Your task to perform on an android device: open app "Venmo" (install if not already installed) and go to login screen Image 0: 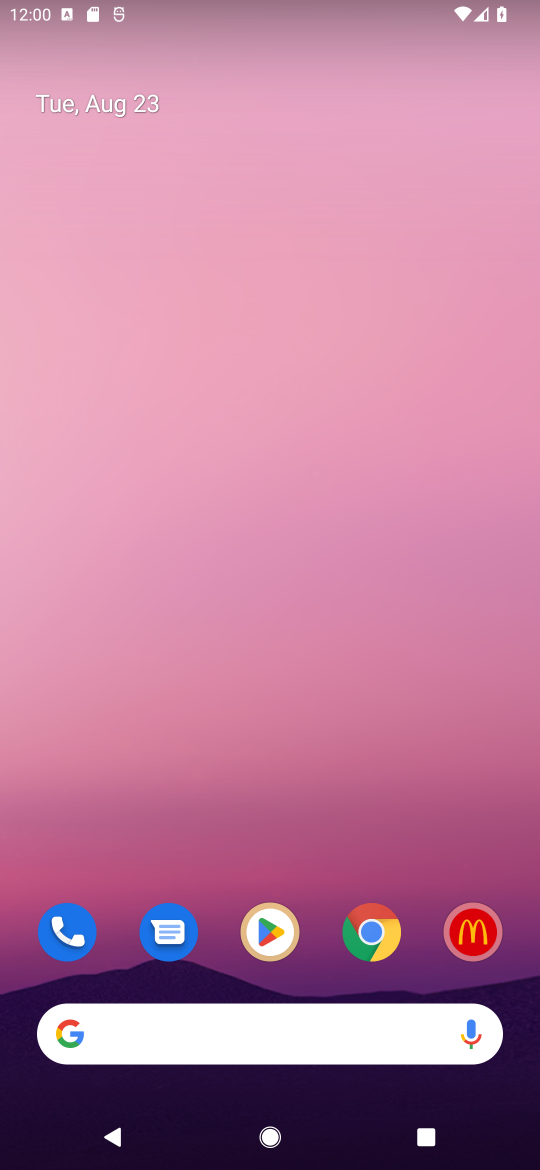
Step 0: click (281, 919)
Your task to perform on an android device: open app "Venmo" (install if not already installed) and go to login screen Image 1: 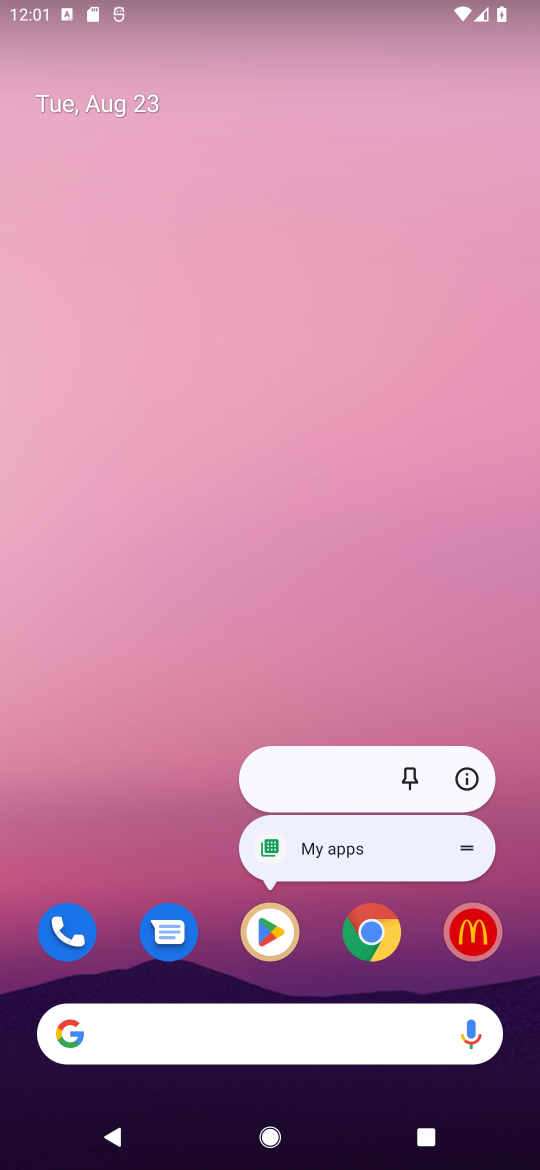
Step 1: click (276, 930)
Your task to perform on an android device: open app "Venmo" (install if not already installed) and go to login screen Image 2: 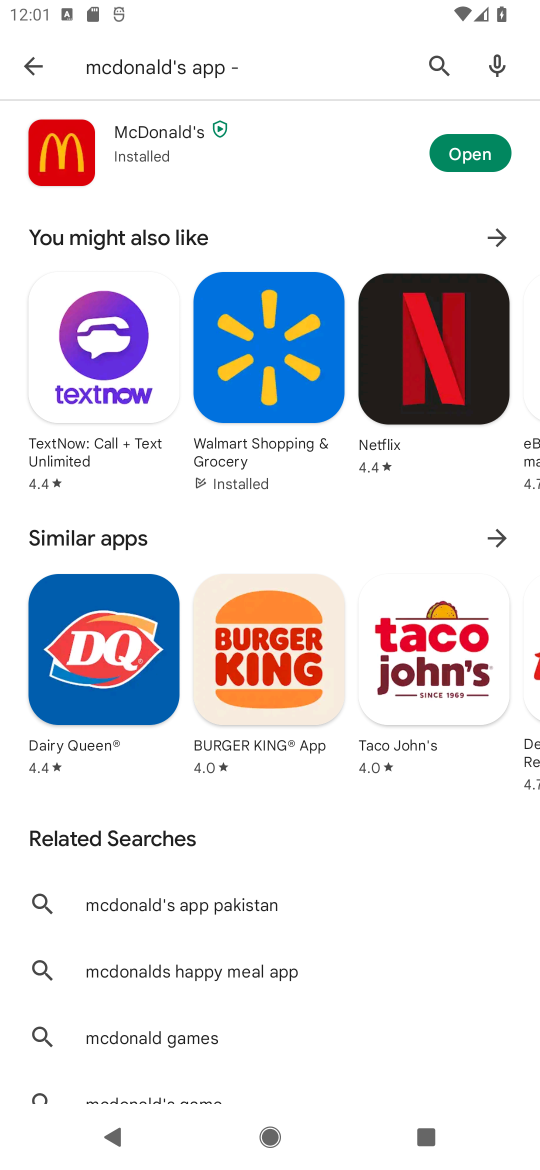
Step 2: click (439, 49)
Your task to perform on an android device: open app "Venmo" (install if not already installed) and go to login screen Image 3: 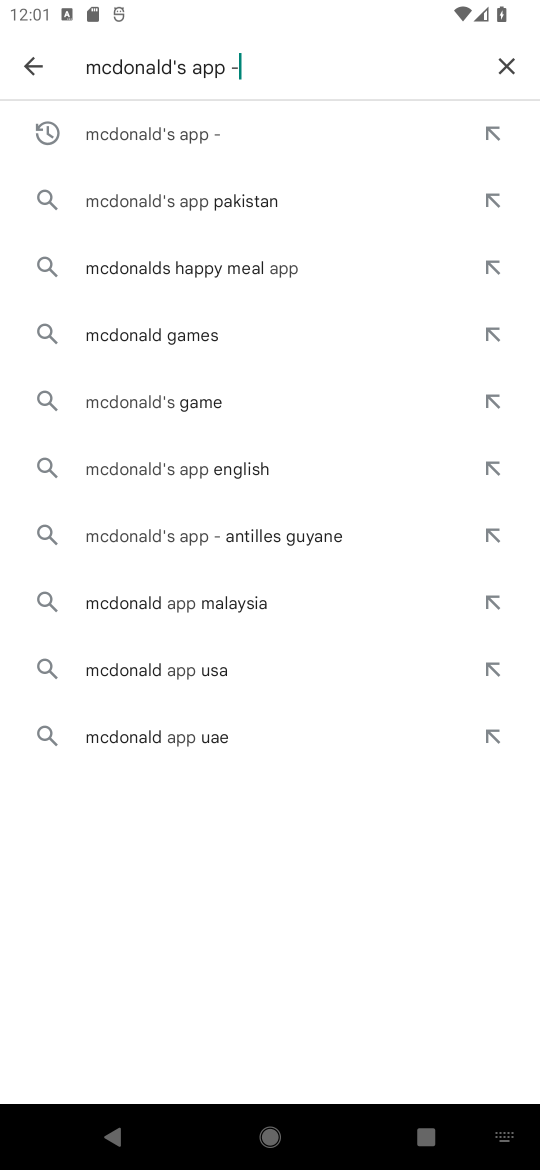
Step 3: click (508, 61)
Your task to perform on an android device: open app "Venmo" (install if not already installed) and go to login screen Image 4: 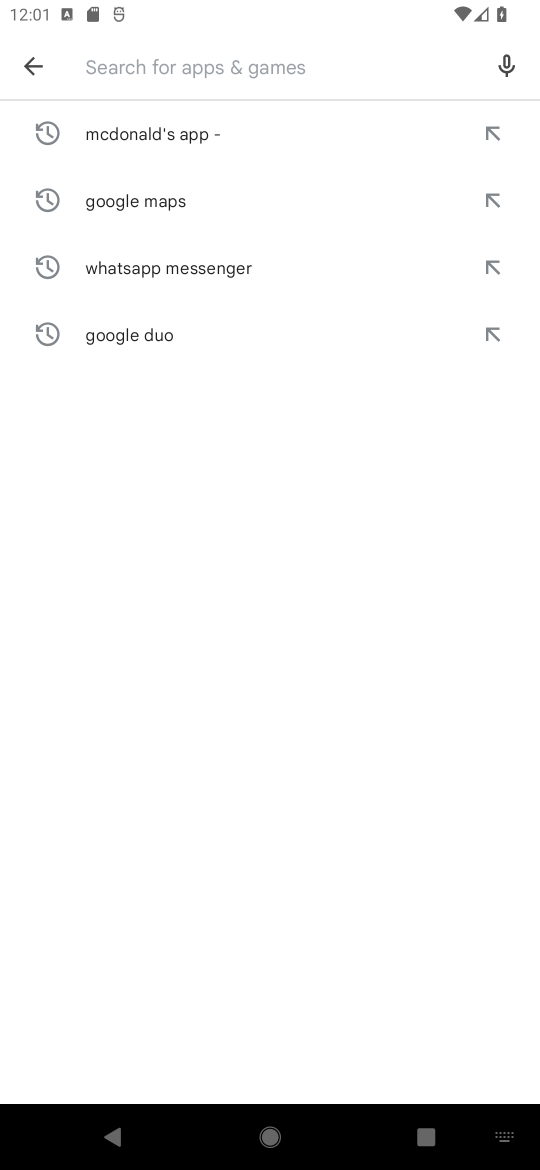
Step 4: type "venmo"
Your task to perform on an android device: open app "Venmo" (install if not already installed) and go to login screen Image 5: 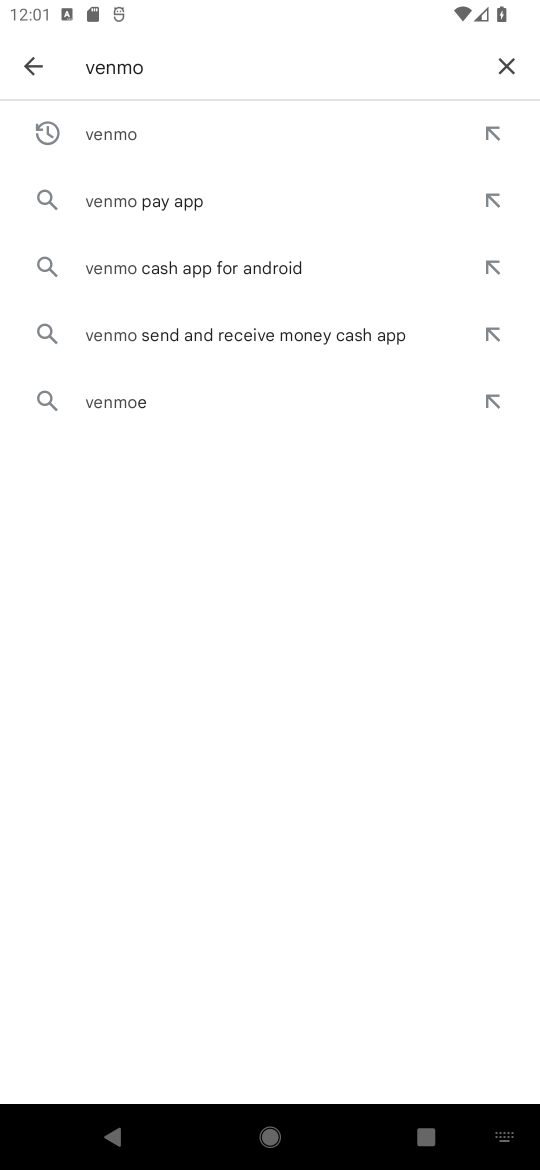
Step 5: click (136, 130)
Your task to perform on an android device: open app "Venmo" (install if not already installed) and go to login screen Image 6: 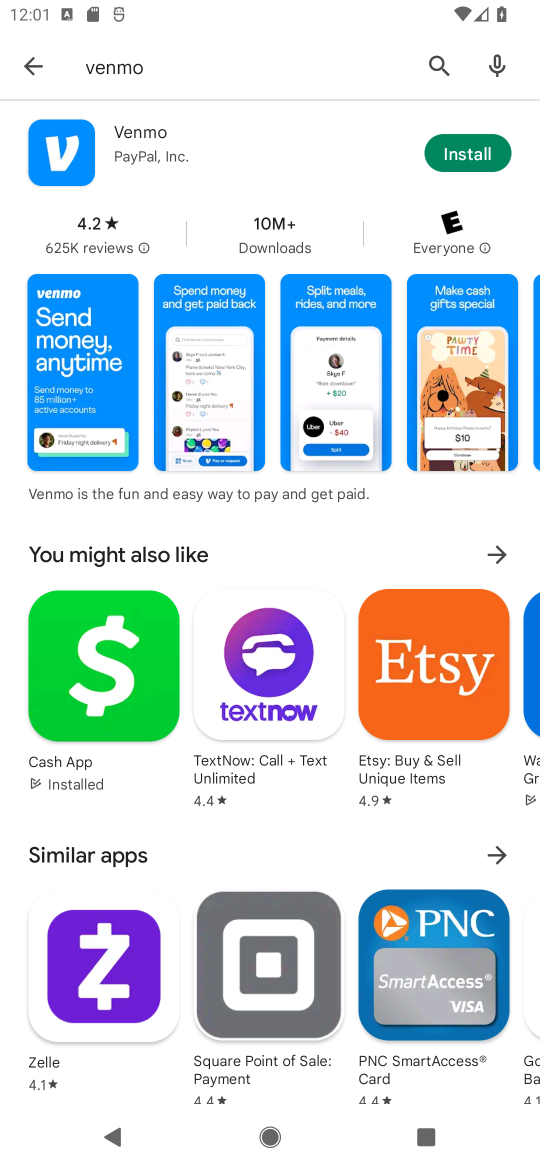
Step 6: click (472, 162)
Your task to perform on an android device: open app "Venmo" (install if not already installed) and go to login screen Image 7: 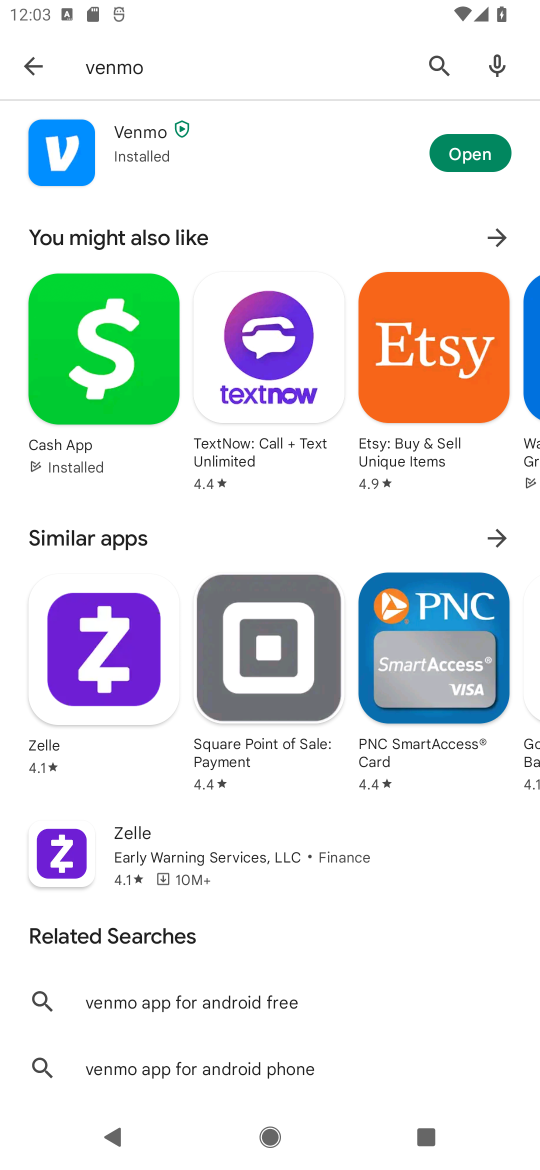
Step 7: click (486, 147)
Your task to perform on an android device: open app "Venmo" (install if not already installed) and go to login screen Image 8: 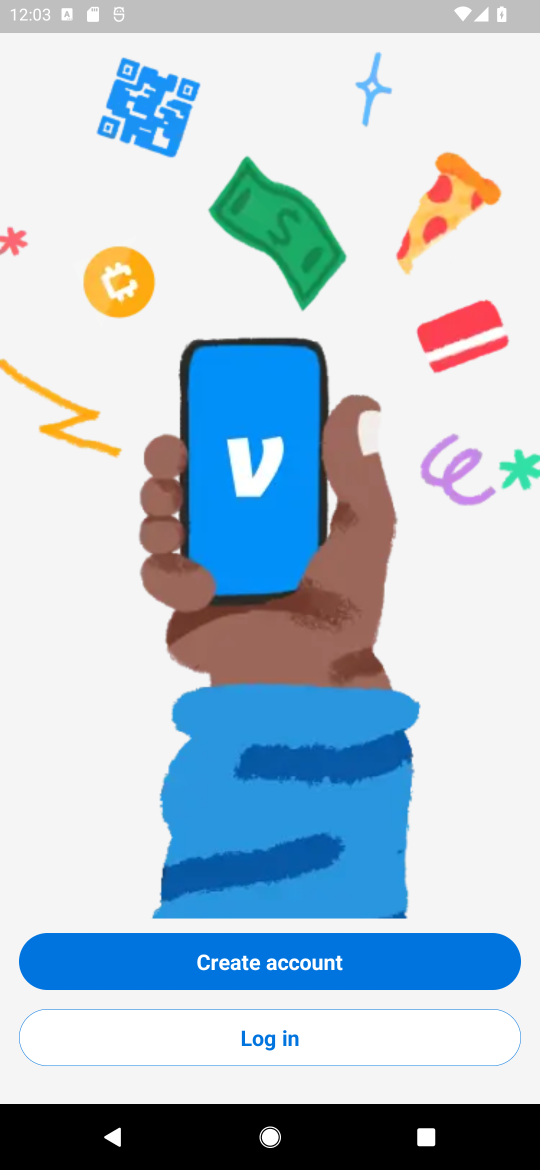
Step 8: click (353, 1008)
Your task to perform on an android device: open app "Venmo" (install if not already installed) and go to login screen Image 9: 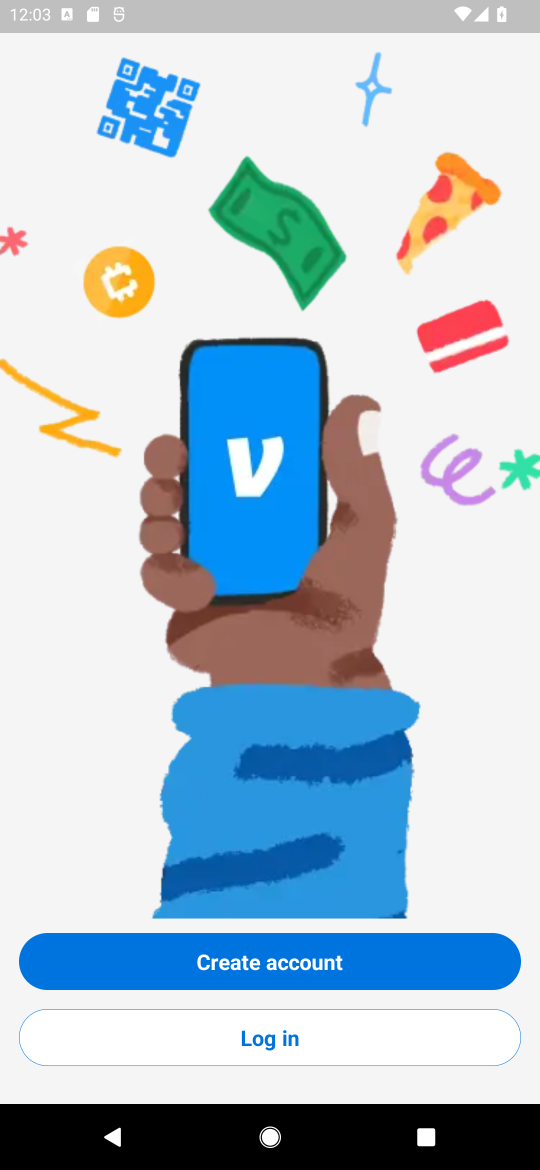
Step 9: click (339, 1041)
Your task to perform on an android device: open app "Venmo" (install if not already installed) and go to login screen Image 10: 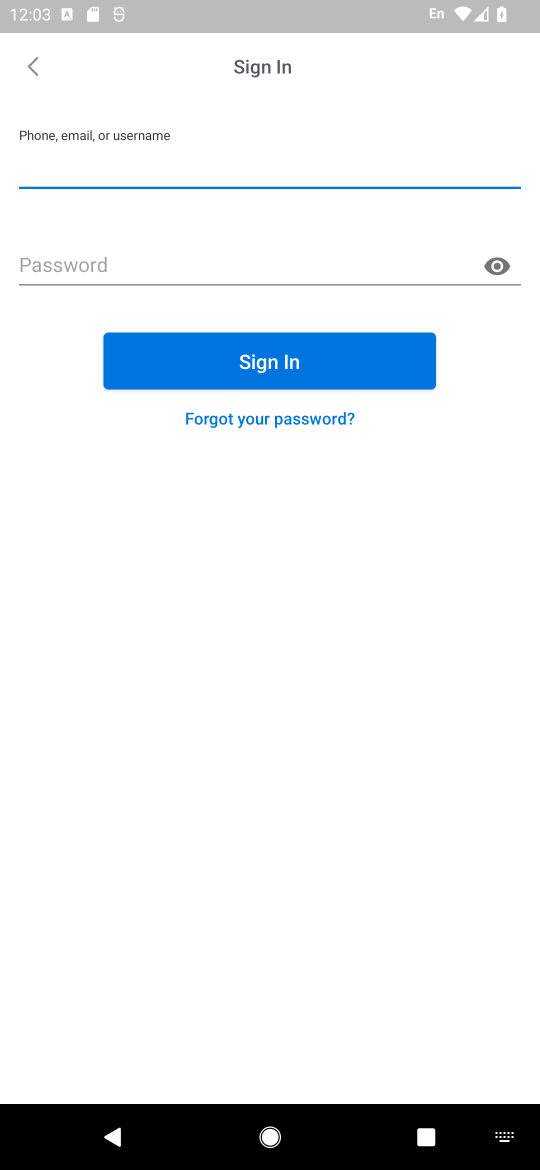
Step 10: task complete